Your task to perform on an android device: uninstall "NewsBreak: Local News & Alerts" Image 0: 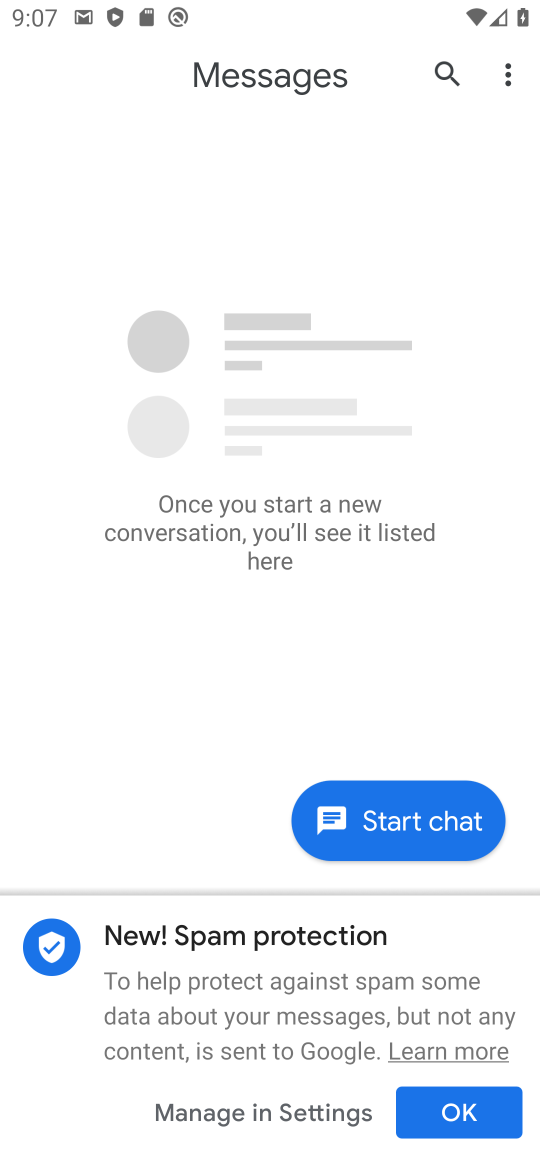
Step 0: press home button
Your task to perform on an android device: uninstall "NewsBreak: Local News & Alerts" Image 1: 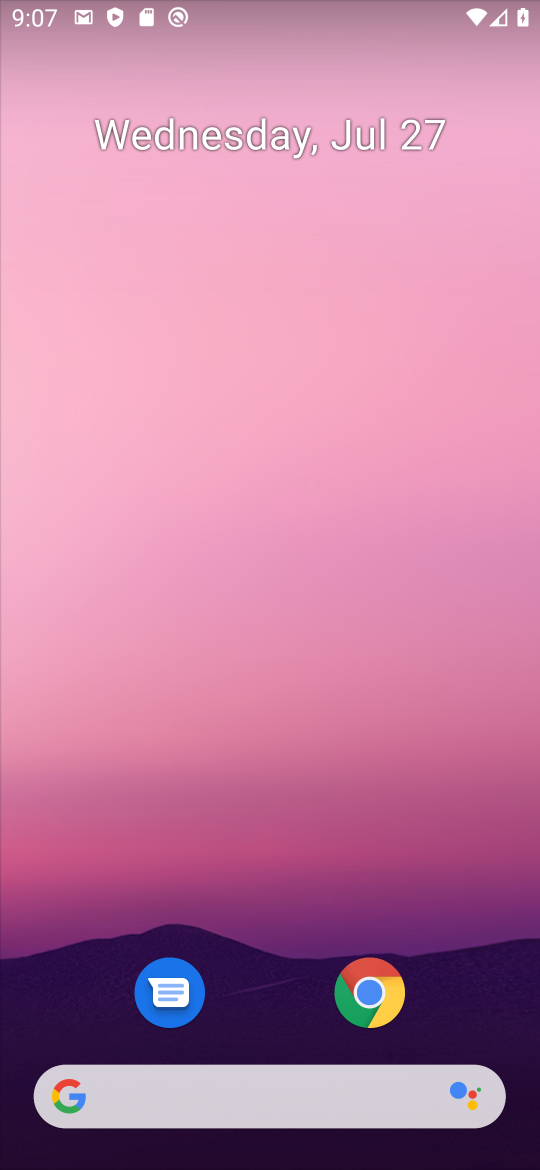
Step 1: drag from (282, 1018) to (282, 147)
Your task to perform on an android device: uninstall "NewsBreak: Local News & Alerts" Image 2: 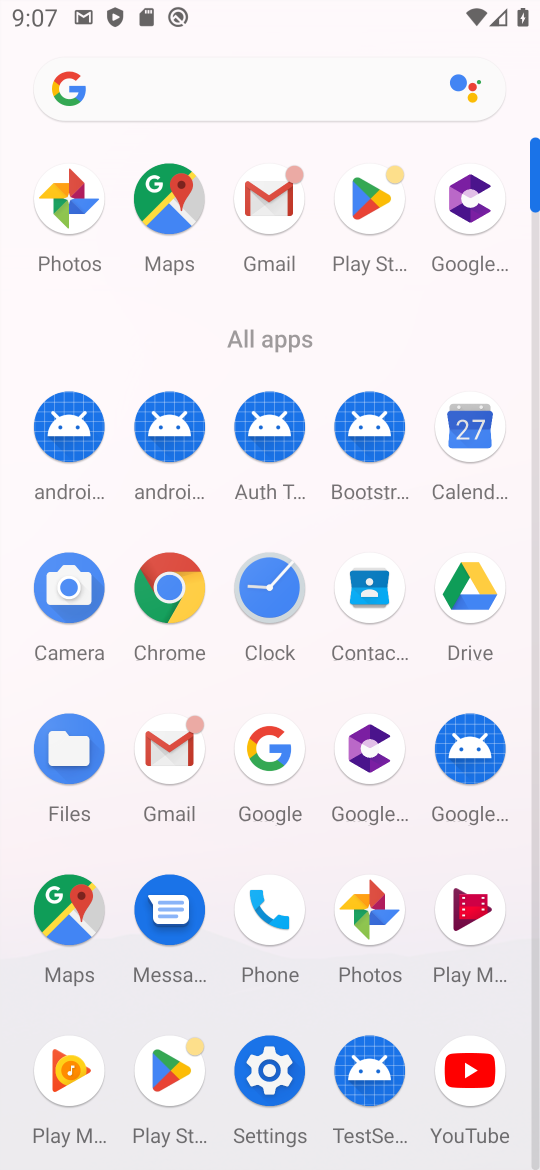
Step 2: click (172, 1070)
Your task to perform on an android device: uninstall "NewsBreak: Local News & Alerts" Image 3: 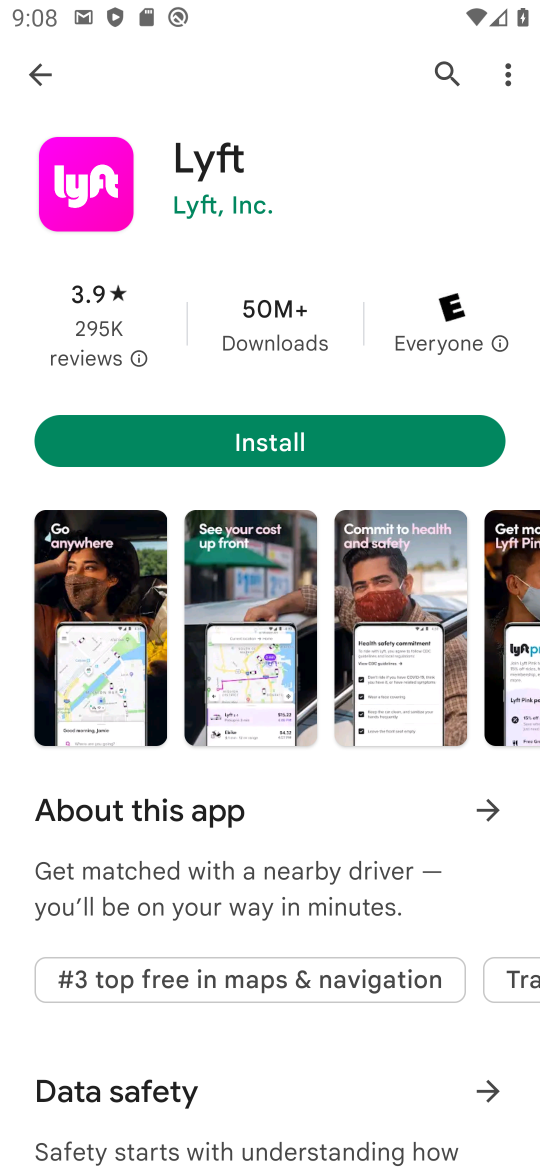
Step 3: click (440, 70)
Your task to perform on an android device: uninstall "NewsBreak: Local News & Alerts" Image 4: 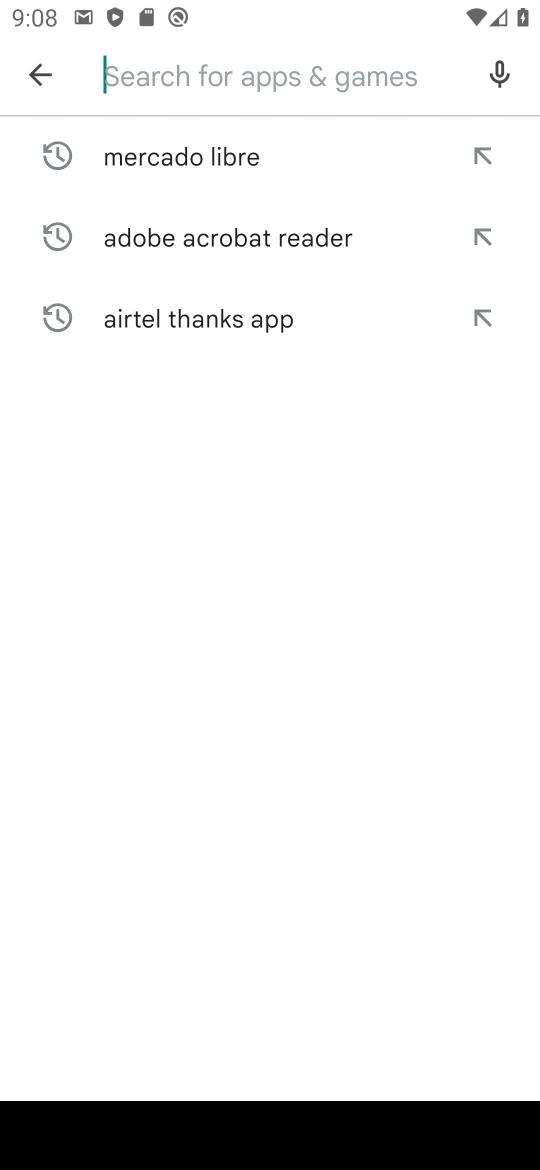
Step 4: type "NewsBreak: Local News & Alerts"
Your task to perform on an android device: uninstall "NewsBreak: Local News & Alerts" Image 5: 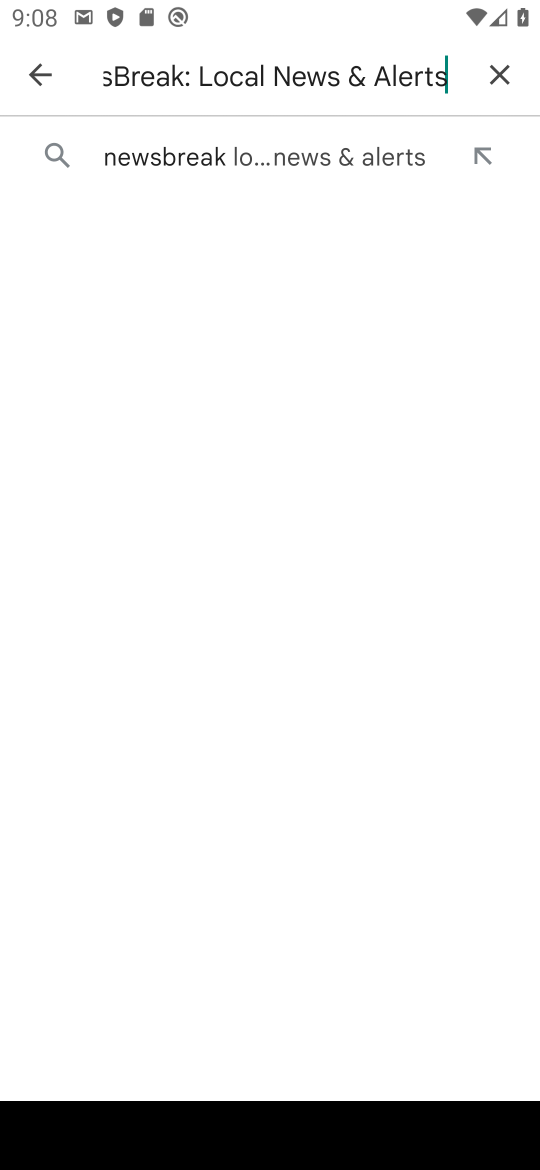
Step 5: click (235, 155)
Your task to perform on an android device: uninstall "NewsBreak: Local News & Alerts" Image 6: 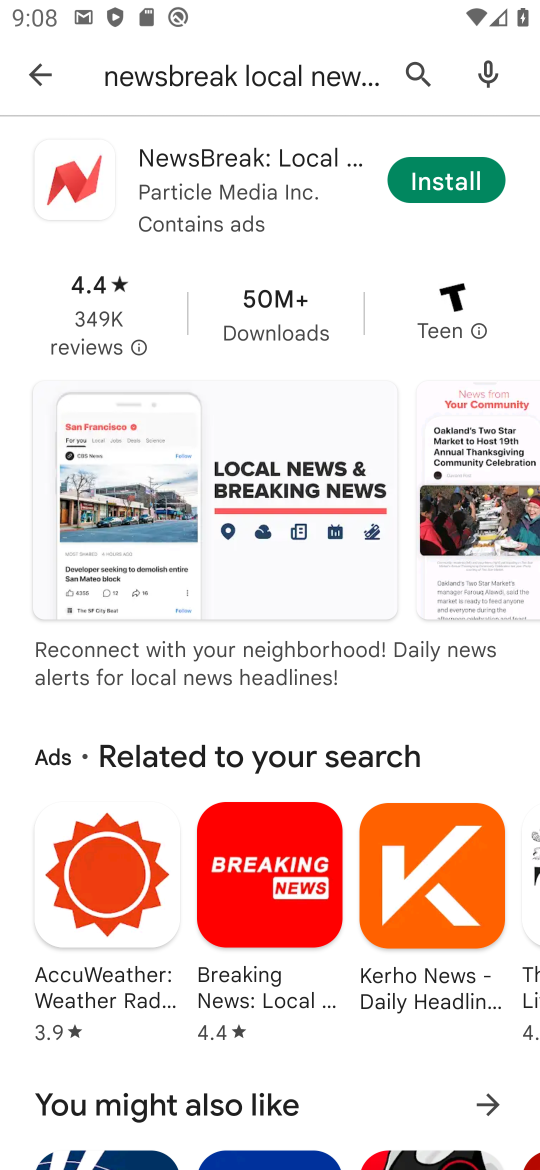
Step 6: task complete